Your task to perform on an android device: Open privacy settings Image 0: 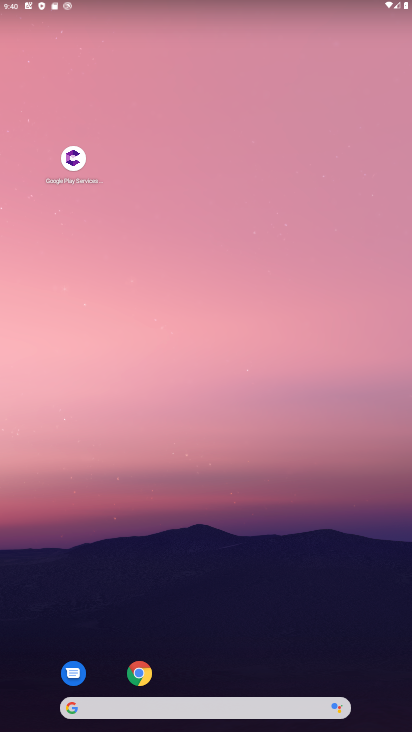
Step 0: drag from (216, 659) to (193, 56)
Your task to perform on an android device: Open privacy settings Image 1: 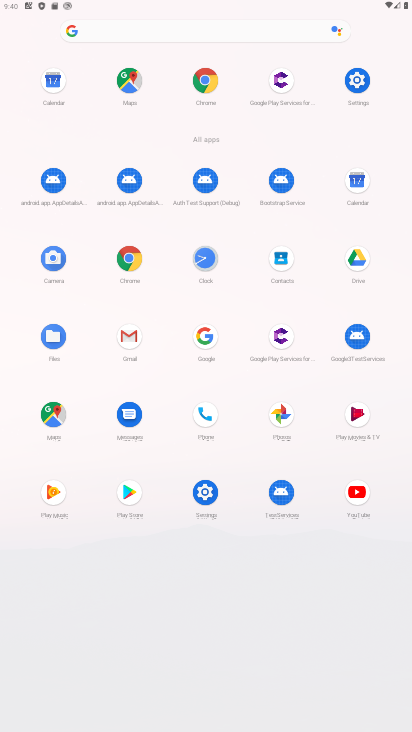
Step 1: click (355, 82)
Your task to perform on an android device: Open privacy settings Image 2: 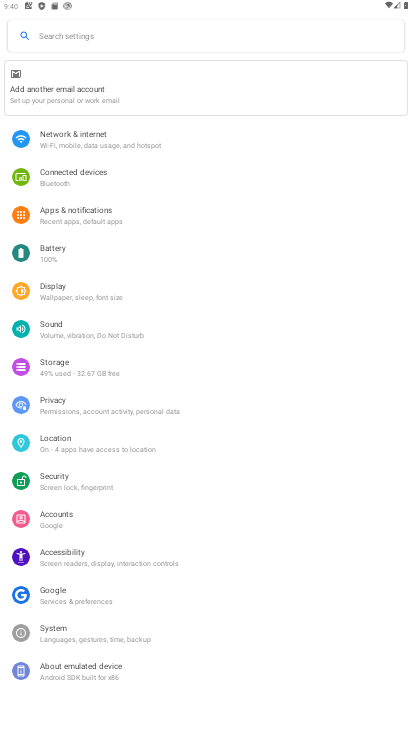
Step 2: click (83, 411)
Your task to perform on an android device: Open privacy settings Image 3: 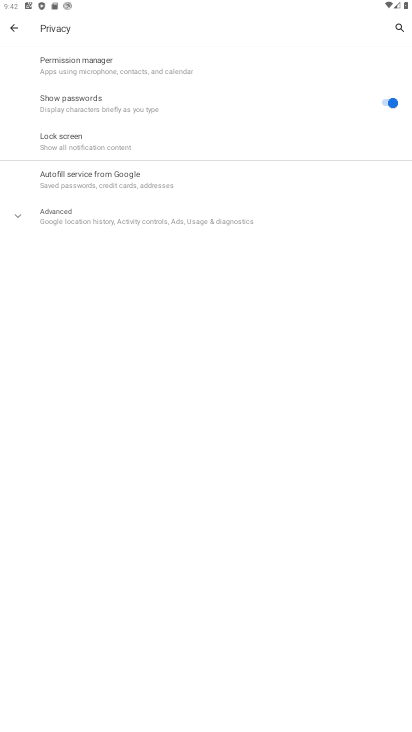
Step 3: task complete